Your task to perform on an android device: What's on my calendar tomorrow? Image 0: 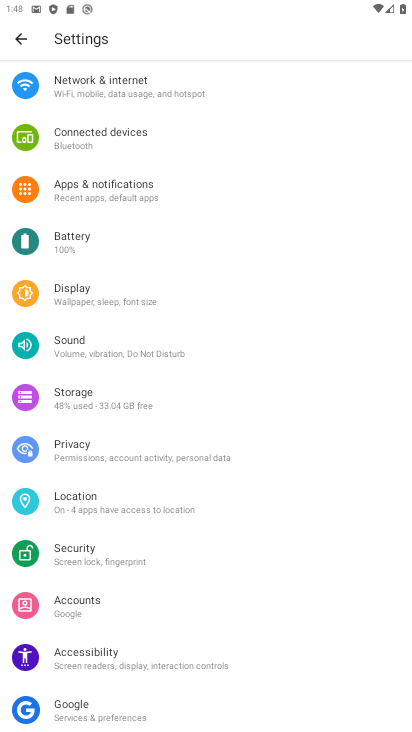
Step 0: press home button
Your task to perform on an android device: What's on my calendar tomorrow? Image 1: 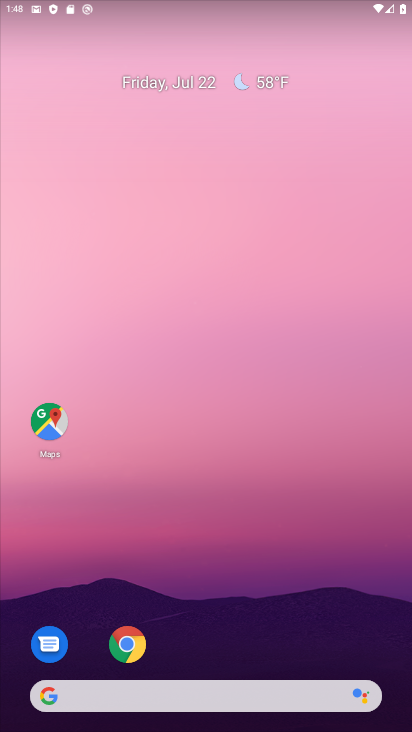
Step 1: drag from (259, 650) to (297, 173)
Your task to perform on an android device: What's on my calendar tomorrow? Image 2: 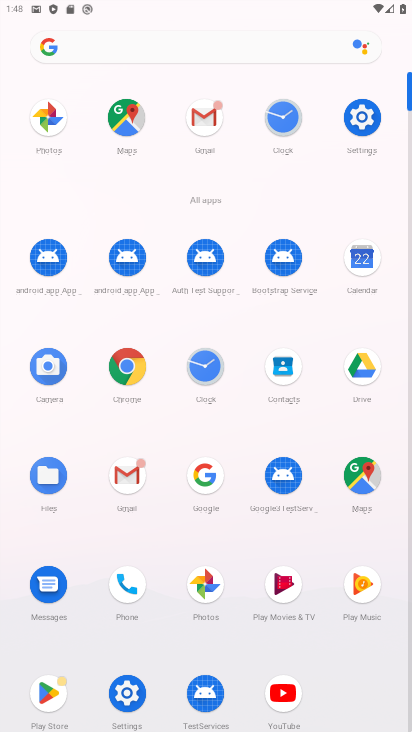
Step 2: click (361, 266)
Your task to perform on an android device: What's on my calendar tomorrow? Image 3: 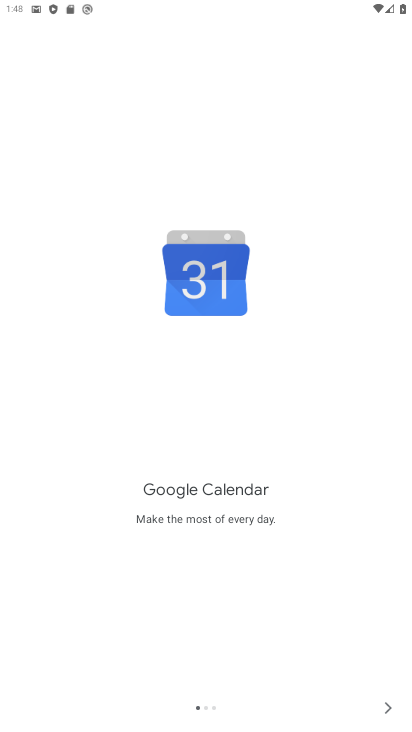
Step 3: click (385, 718)
Your task to perform on an android device: What's on my calendar tomorrow? Image 4: 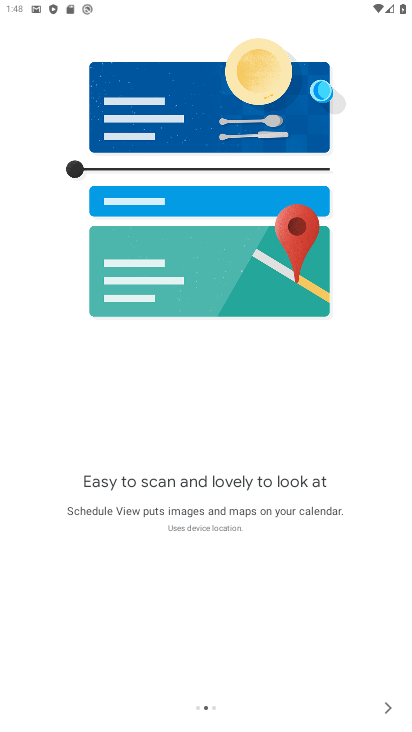
Step 4: click (385, 718)
Your task to perform on an android device: What's on my calendar tomorrow? Image 5: 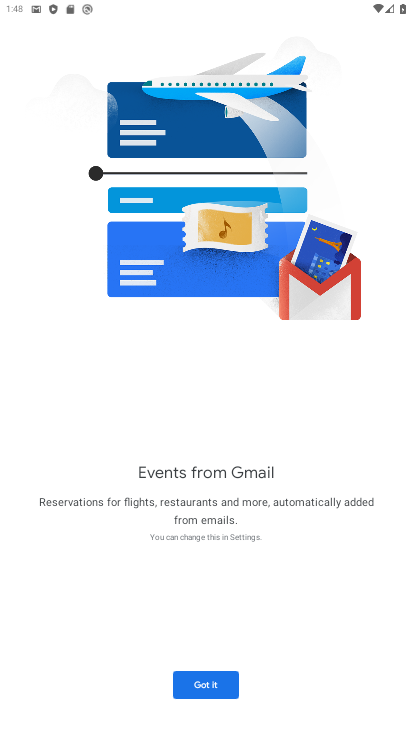
Step 5: click (207, 673)
Your task to perform on an android device: What's on my calendar tomorrow? Image 6: 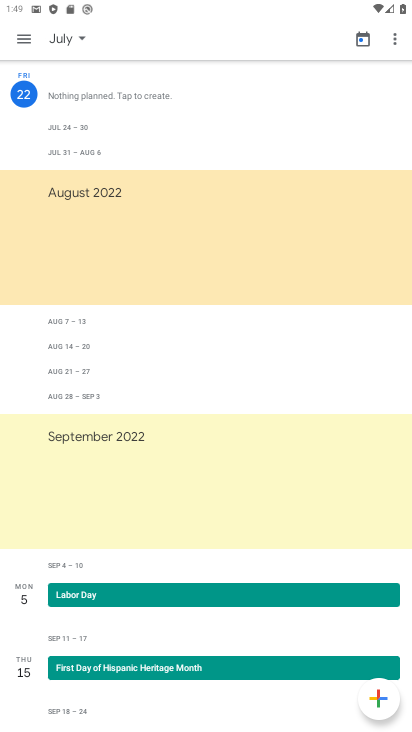
Step 6: click (87, 38)
Your task to perform on an android device: What's on my calendar tomorrow? Image 7: 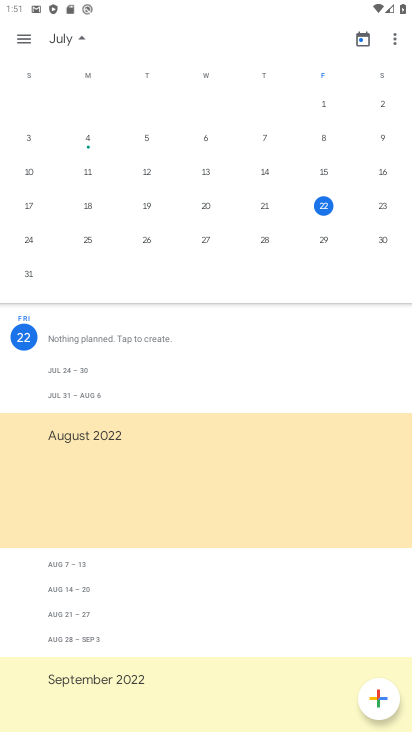
Step 7: task complete